Your task to perform on an android device: Open the calendar and show me this week's events Image 0: 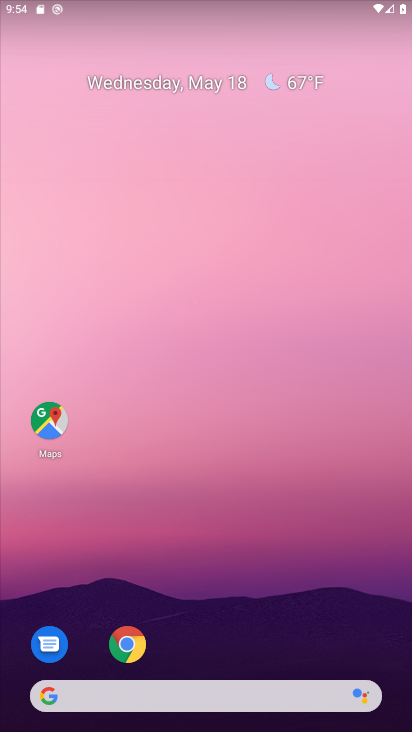
Step 0: drag from (293, 609) to (206, 0)
Your task to perform on an android device: Open the calendar and show me this week's events Image 1: 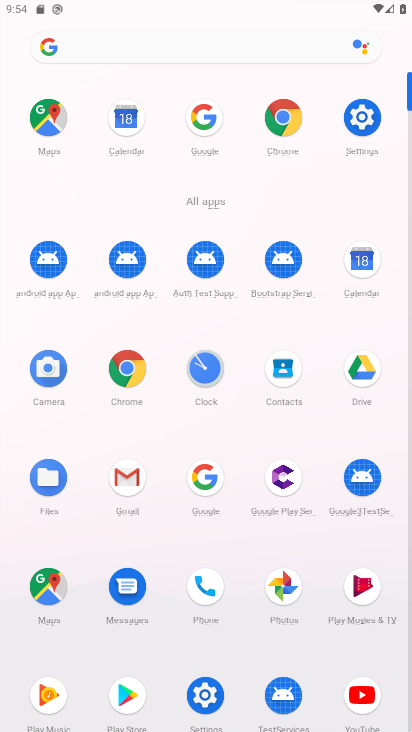
Step 1: click (363, 261)
Your task to perform on an android device: Open the calendar and show me this week's events Image 2: 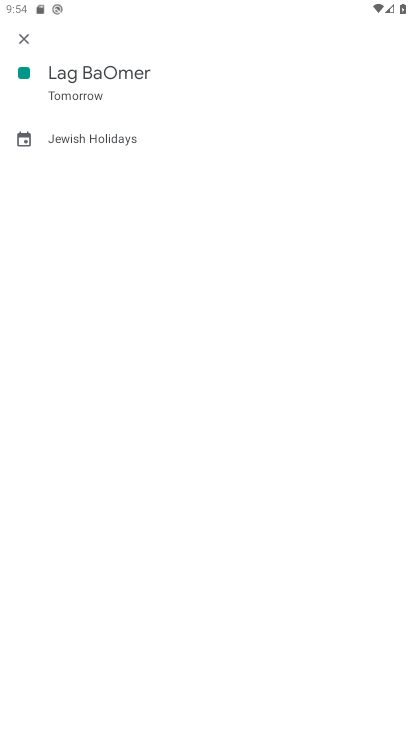
Step 2: click (21, 43)
Your task to perform on an android device: Open the calendar and show me this week's events Image 3: 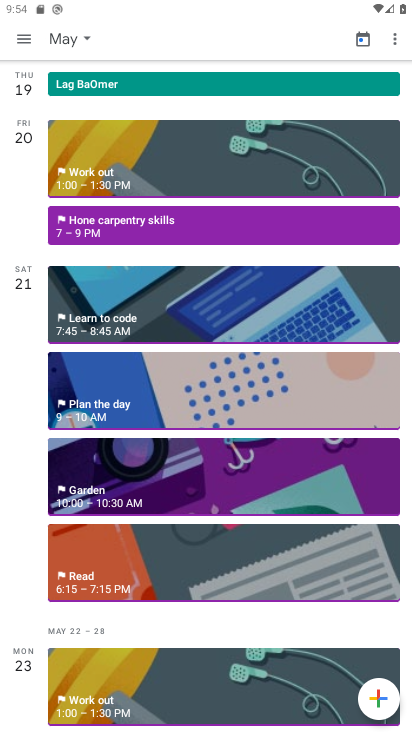
Step 3: task complete